Your task to perform on an android device: turn off picture-in-picture Image 0: 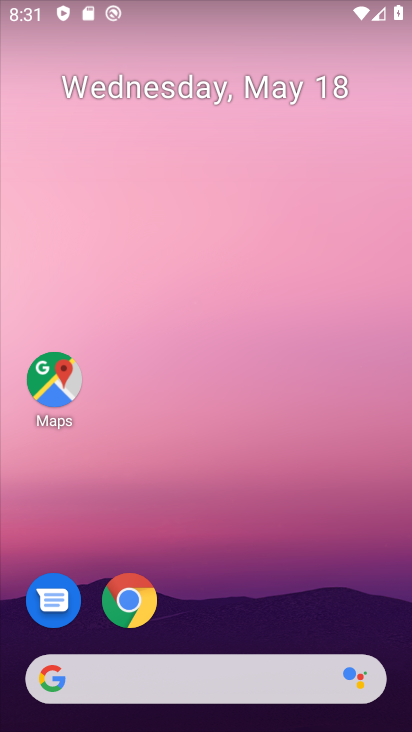
Step 0: drag from (38, 551) to (226, 122)
Your task to perform on an android device: turn off picture-in-picture Image 1: 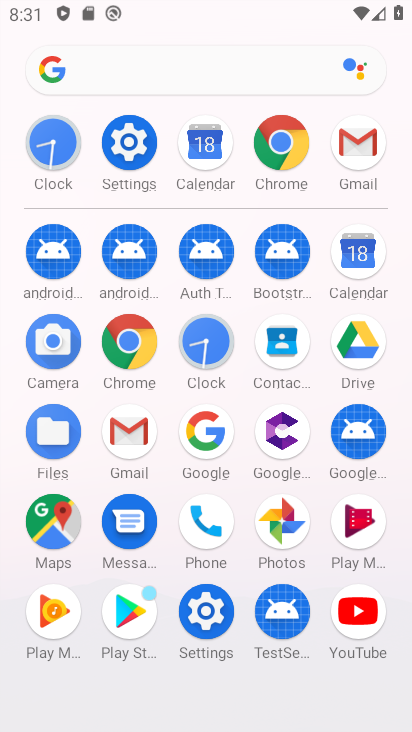
Step 1: click (132, 152)
Your task to perform on an android device: turn off picture-in-picture Image 2: 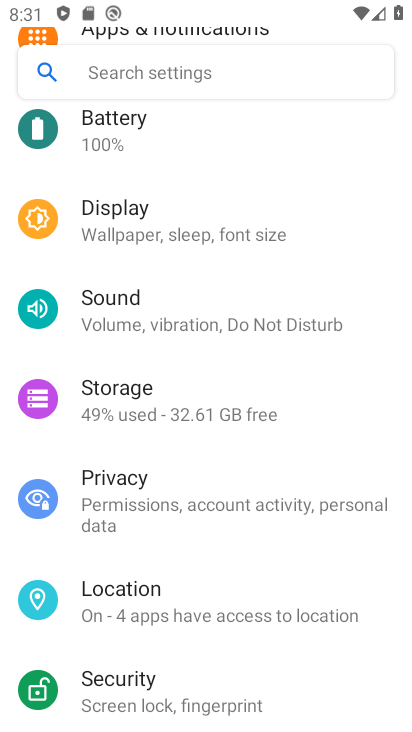
Step 2: drag from (128, 150) to (24, 642)
Your task to perform on an android device: turn off picture-in-picture Image 3: 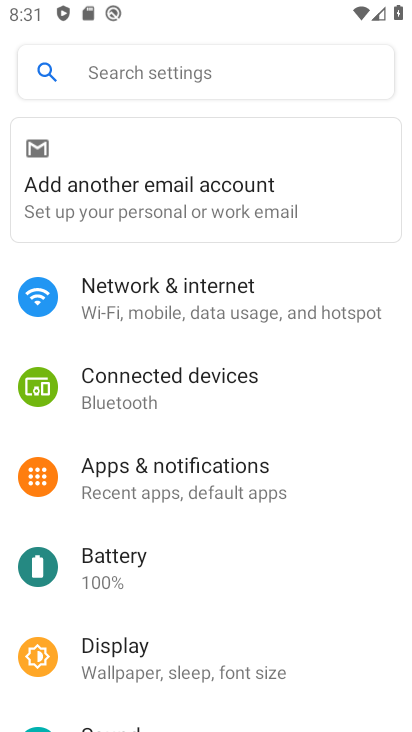
Step 3: click (198, 484)
Your task to perform on an android device: turn off picture-in-picture Image 4: 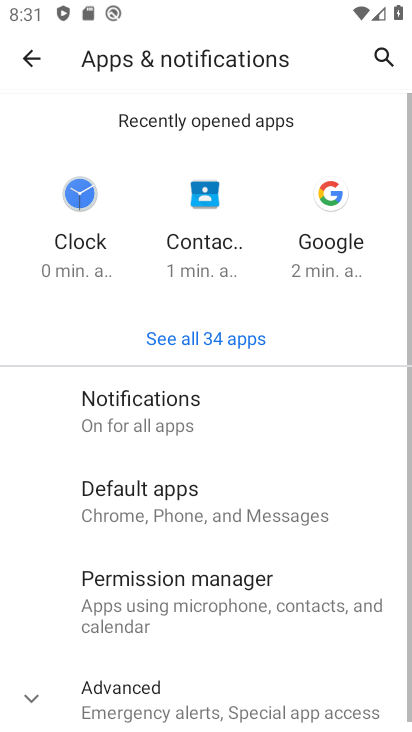
Step 4: click (206, 406)
Your task to perform on an android device: turn off picture-in-picture Image 5: 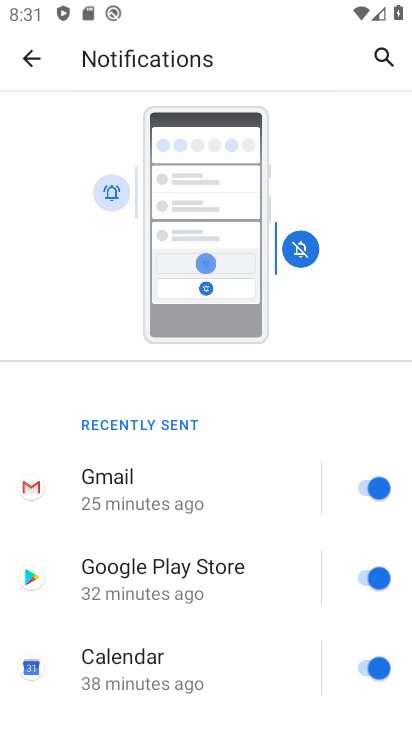
Step 5: press back button
Your task to perform on an android device: turn off picture-in-picture Image 6: 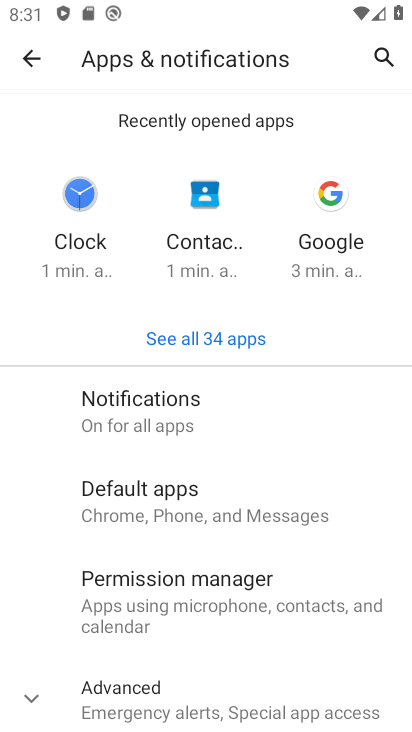
Step 6: drag from (117, 599) to (251, 57)
Your task to perform on an android device: turn off picture-in-picture Image 7: 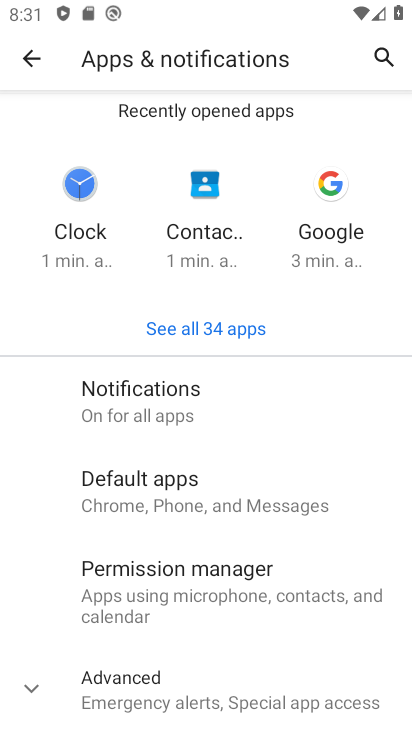
Step 7: click (149, 685)
Your task to perform on an android device: turn off picture-in-picture Image 8: 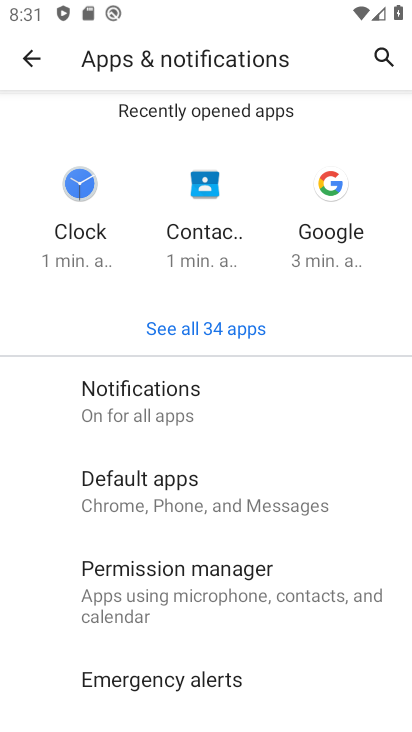
Step 8: drag from (9, 542) to (238, 124)
Your task to perform on an android device: turn off picture-in-picture Image 9: 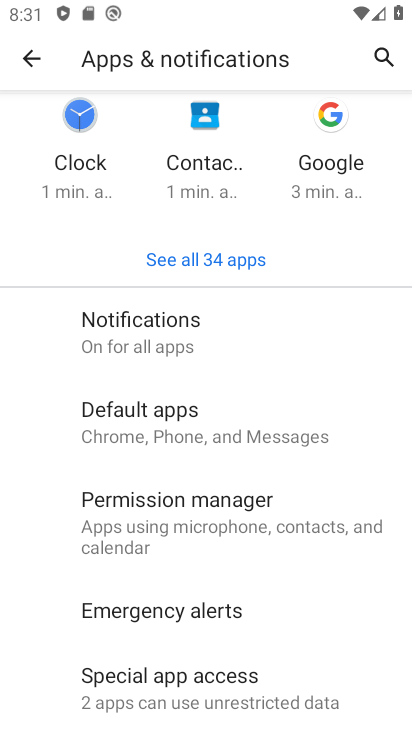
Step 9: click (155, 688)
Your task to perform on an android device: turn off picture-in-picture Image 10: 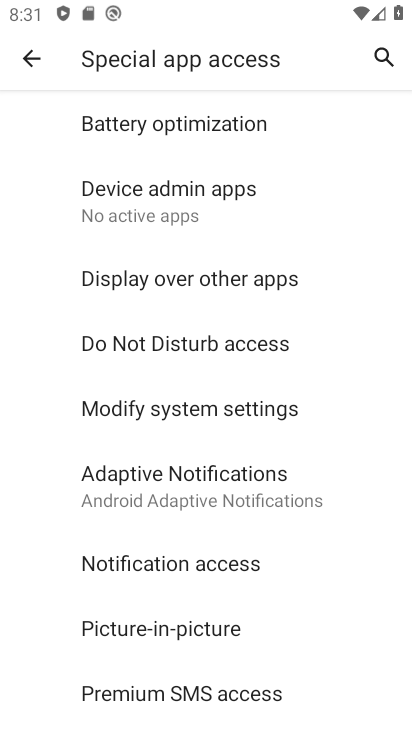
Step 10: click (136, 634)
Your task to perform on an android device: turn off picture-in-picture Image 11: 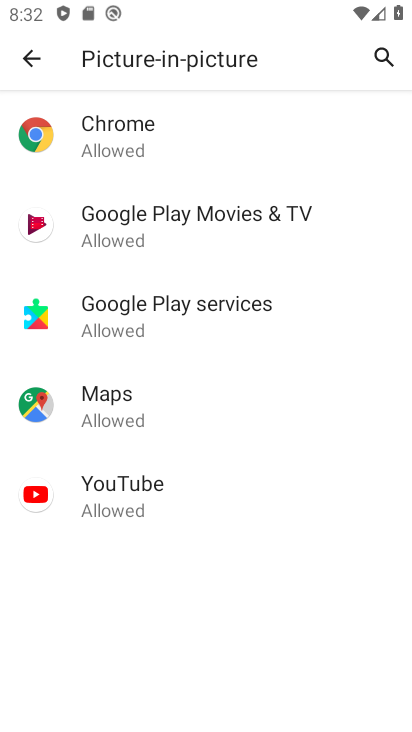
Step 11: click (227, 142)
Your task to perform on an android device: turn off picture-in-picture Image 12: 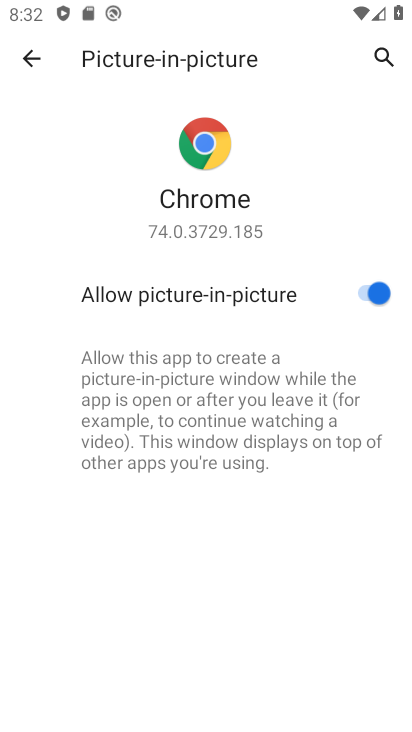
Step 12: click (380, 285)
Your task to perform on an android device: turn off picture-in-picture Image 13: 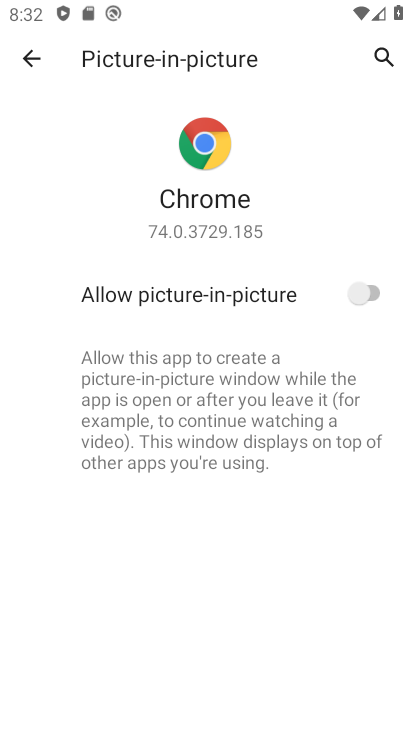
Step 13: press back button
Your task to perform on an android device: turn off picture-in-picture Image 14: 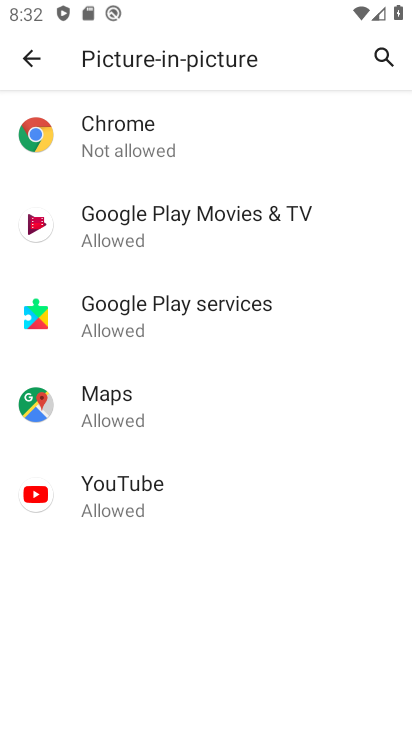
Step 14: click (179, 234)
Your task to perform on an android device: turn off picture-in-picture Image 15: 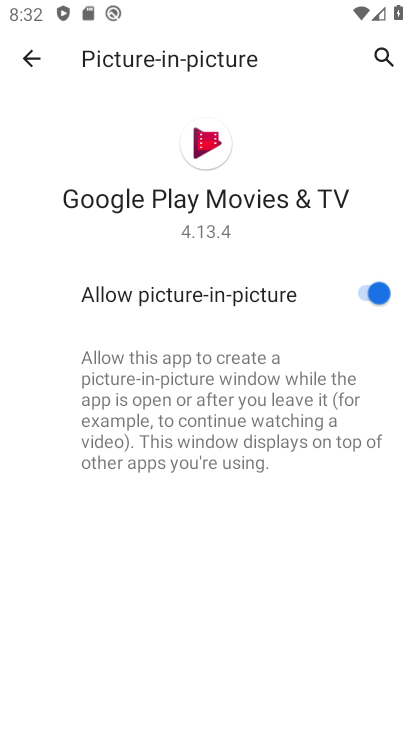
Step 15: click (387, 302)
Your task to perform on an android device: turn off picture-in-picture Image 16: 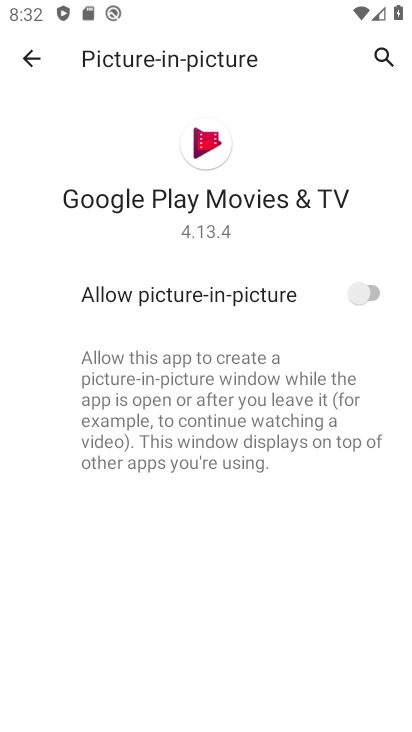
Step 16: press back button
Your task to perform on an android device: turn off picture-in-picture Image 17: 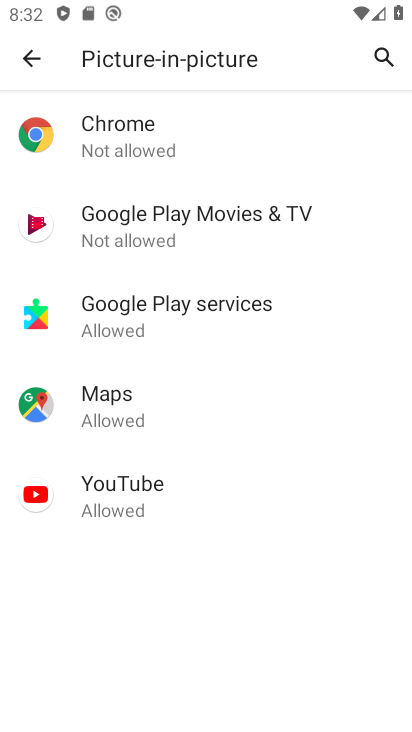
Step 17: click (92, 308)
Your task to perform on an android device: turn off picture-in-picture Image 18: 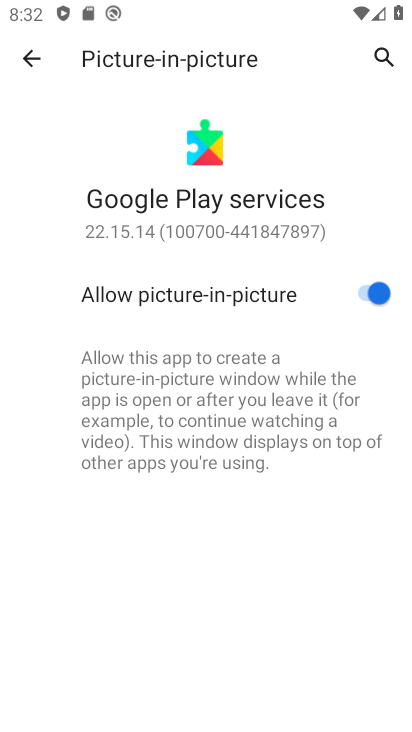
Step 18: click (384, 294)
Your task to perform on an android device: turn off picture-in-picture Image 19: 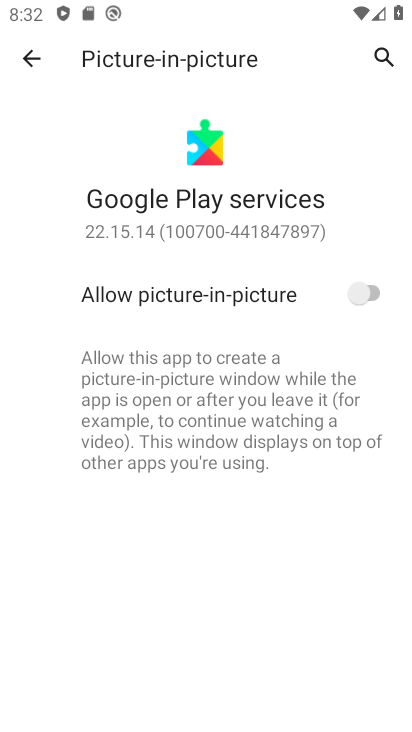
Step 19: task complete